Your task to perform on an android device: change keyboard looks Image 0: 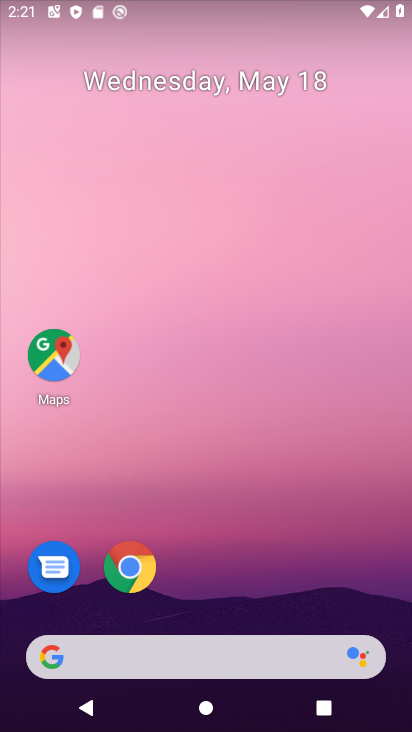
Step 0: drag from (305, 601) to (311, 218)
Your task to perform on an android device: change keyboard looks Image 1: 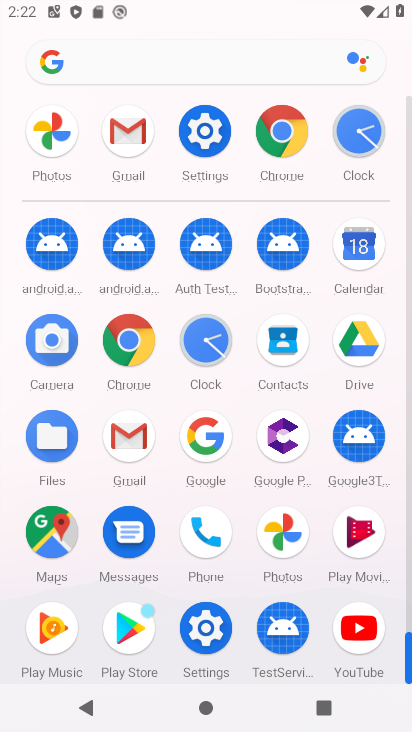
Step 1: click (200, 121)
Your task to perform on an android device: change keyboard looks Image 2: 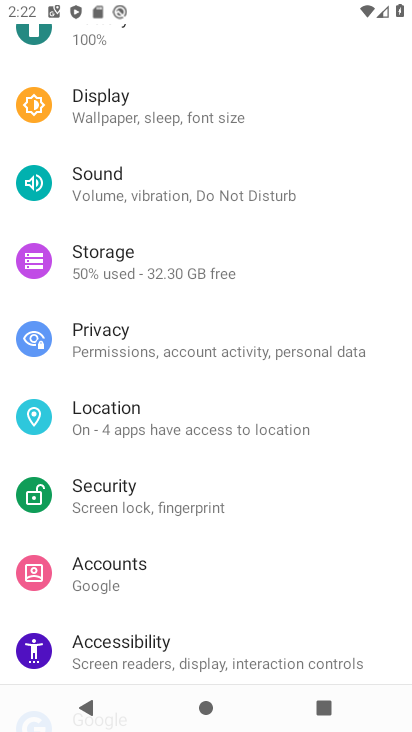
Step 2: drag from (255, 594) to (294, 129)
Your task to perform on an android device: change keyboard looks Image 3: 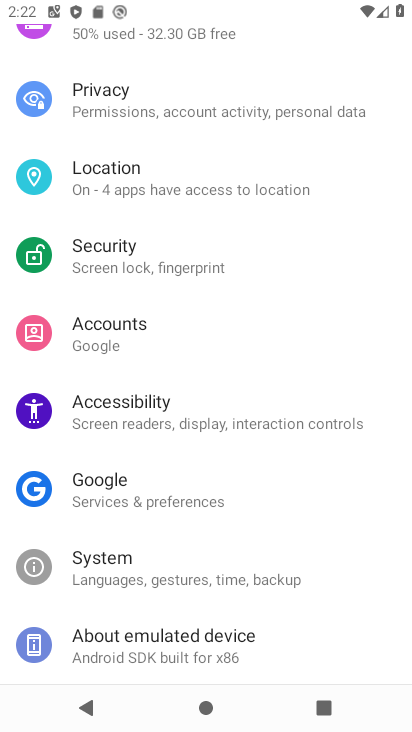
Step 3: click (160, 566)
Your task to perform on an android device: change keyboard looks Image 4: 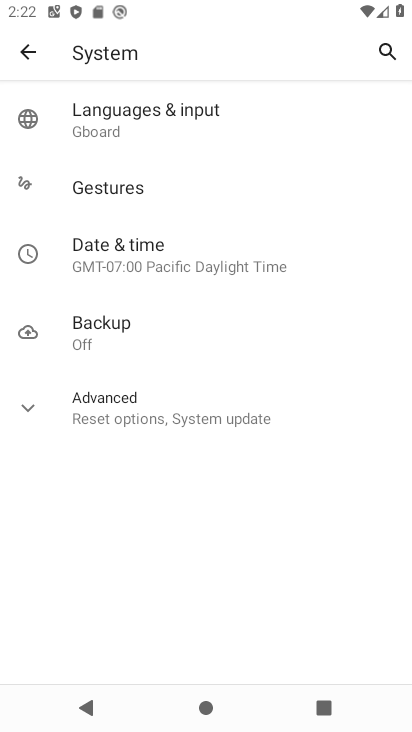
Step 4: click (174, 119)
Your task to perform on an android device: change keyboard looks Image 5: 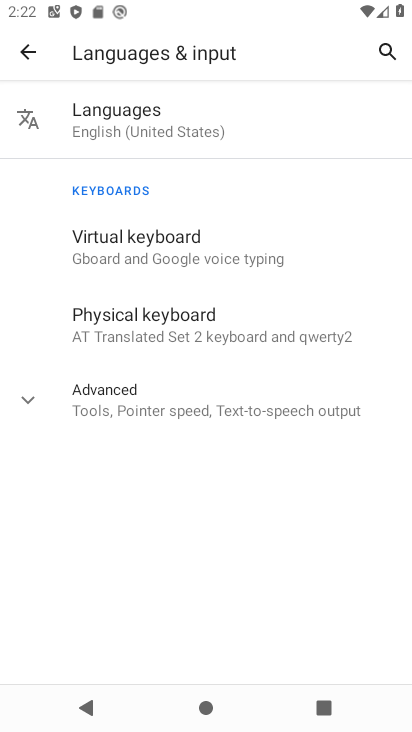
Step 5: click (166, 246)
Your task to perform on an android device: change keyboard looks Image 6: 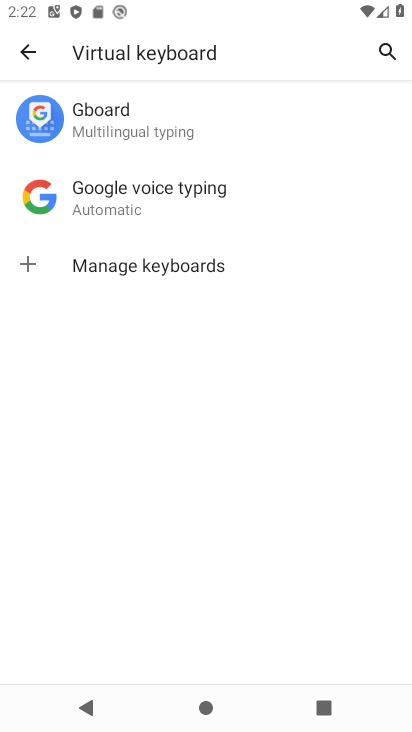
Step 6: click (144, 130)
Your task to perform on an android device: change keyboard looks Image 7: 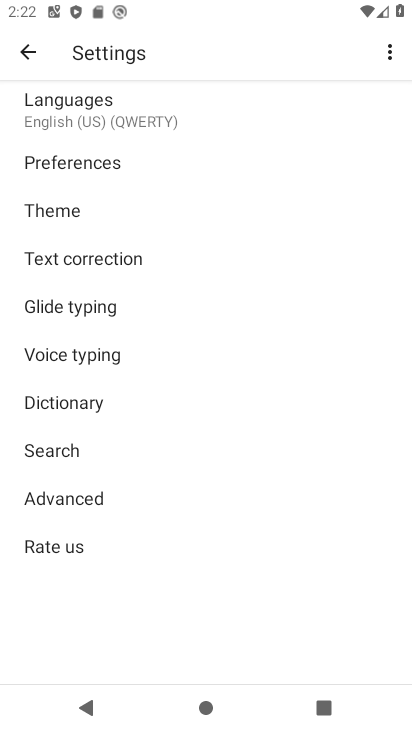
Step 7: click (82, 202)
Your task to perform on an android device: change keyboard looks Image 8: 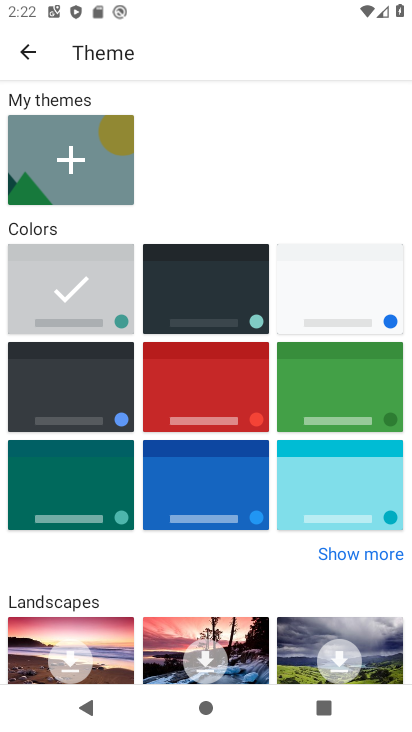
Step 8: click (375, 294)
Your task to perform on an android device: change keyboard looks Image 9: 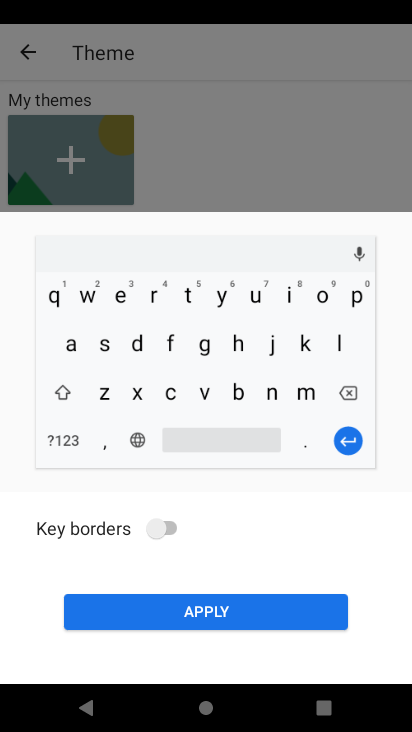
Step 9: click (294, 601)
Your task to perform on an android device: change keyboard looks Image 10: 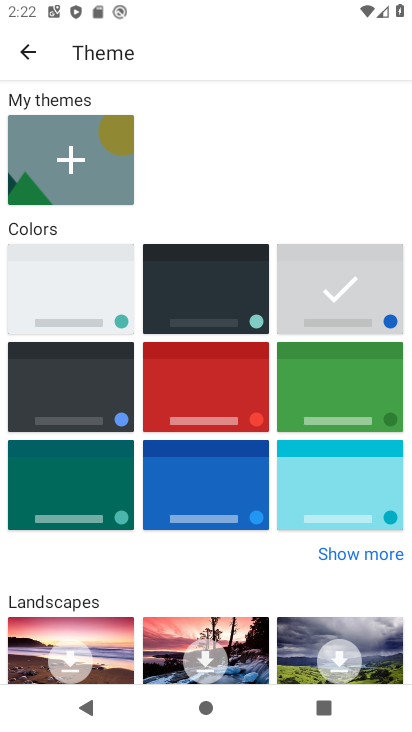
Step 10: task complete